Your task to perform on an android device: turn on the 24-hour format for clock Image 0: 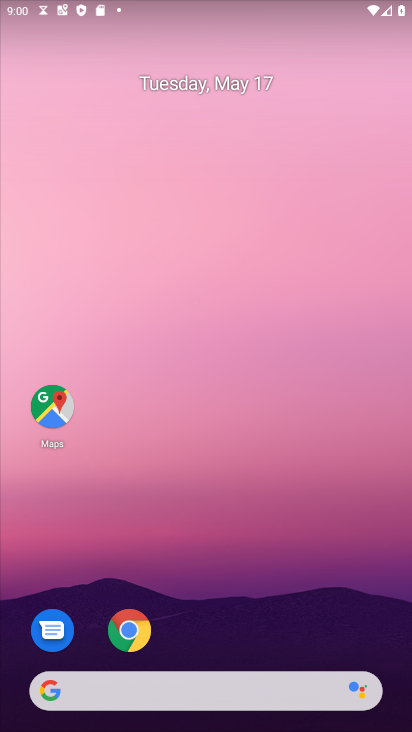
Step 0: drag from (311, 531) to (156, 154)
Your task to perform on an android device: turn on the 24-hour format for clock Image 1: 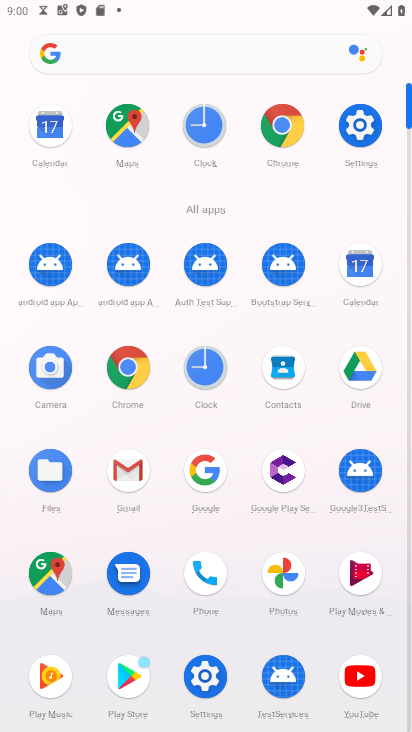
Step 1: click (206, 377)
Your task to perform on an android device: turn on the 24-hour format for clock Image 2: 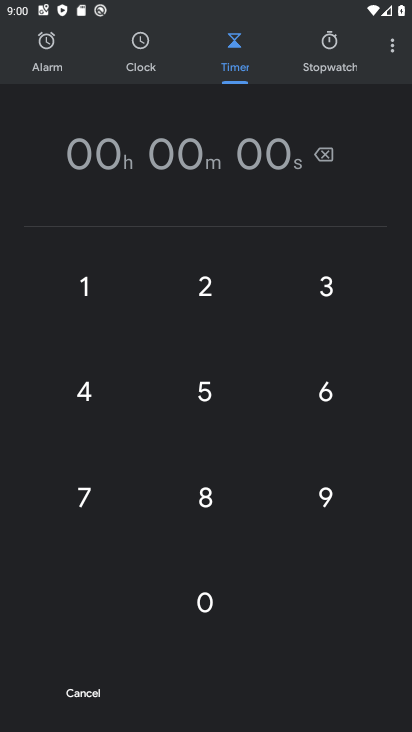
Step 2: click (395, 45)
Your task to perform on an android device: turn on the 24-hour format for clock Image 3: 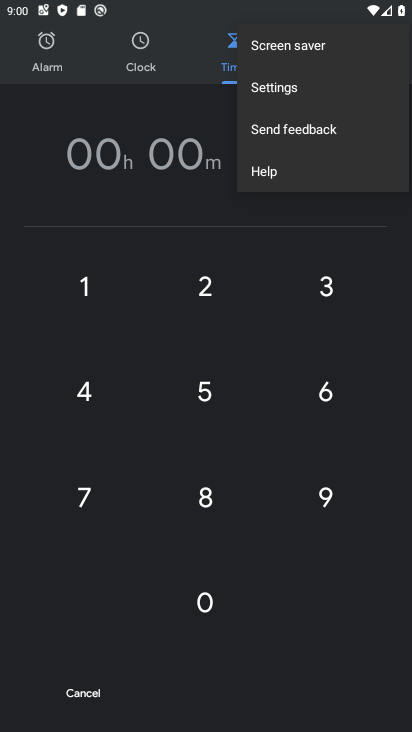
Step 3: click (285, 88)
Your task to perform on an android device: turn on the 24-hour format for clock Image 4: 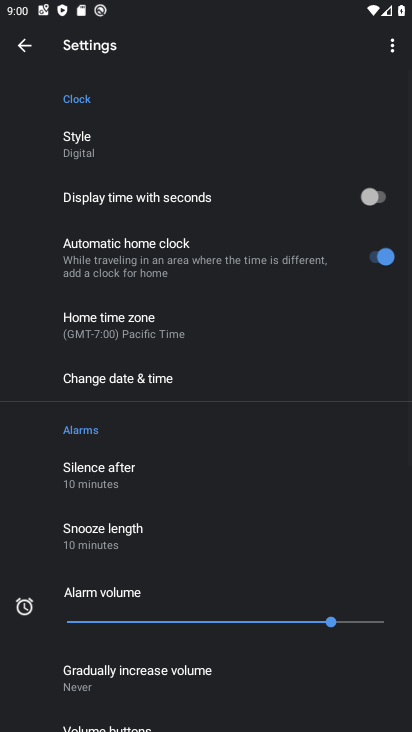
Step 4: click (157, 376)
Your task to perform on an android device: turn on the 24-hour format for clock Image 5: 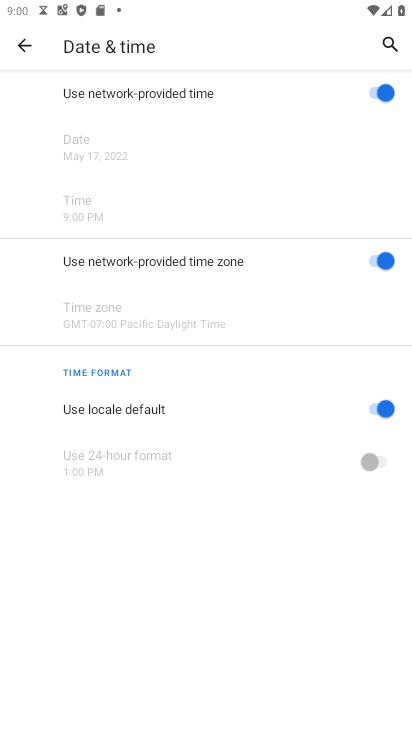
Step 5: click (379, 406)
Your task to perform on an android device: turn on the 24-hour format for clock Image 6: 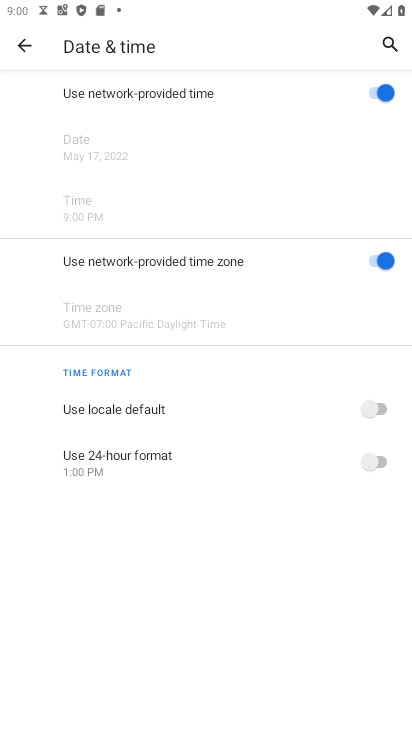
Step 6: click (379, 462)
Your task to perform on an android device: turn on the 24-hour format for clock Image 7: 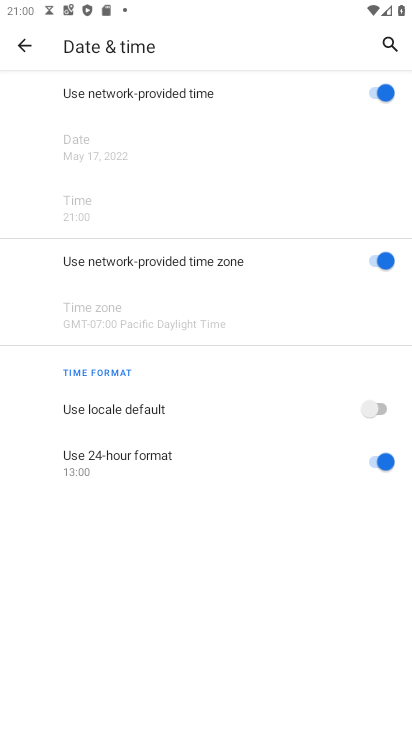
Step 7: task complete